Your task to perform on an android device: Open maps Image 0: 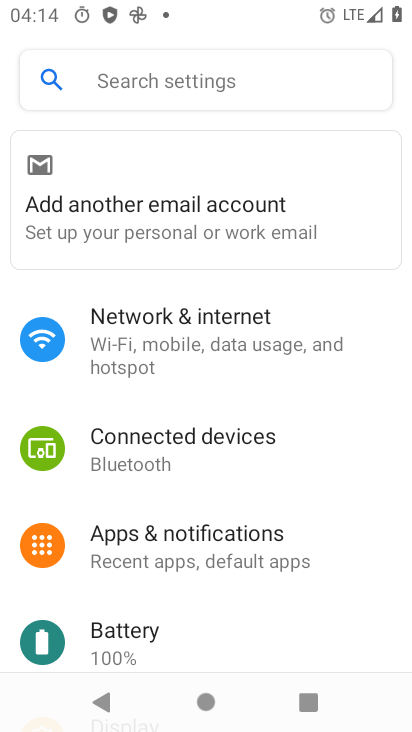
Step 0: press home button
Your task to perform on an android device: Open maps Image 1: 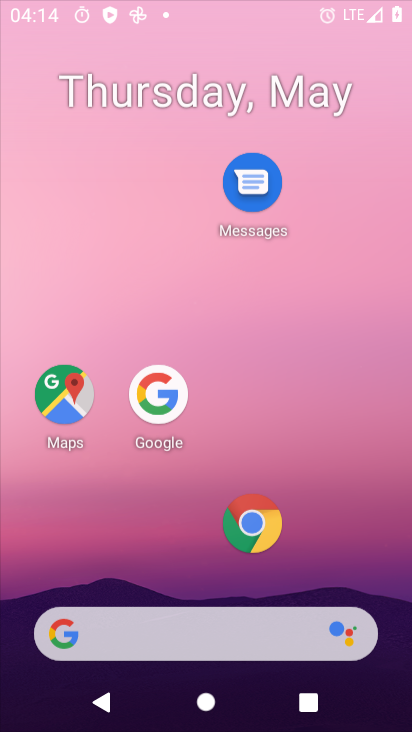
Step 1: drag from (238, 600) to (283, 23)
Your task to perform on an android device: Open maps Image 2: 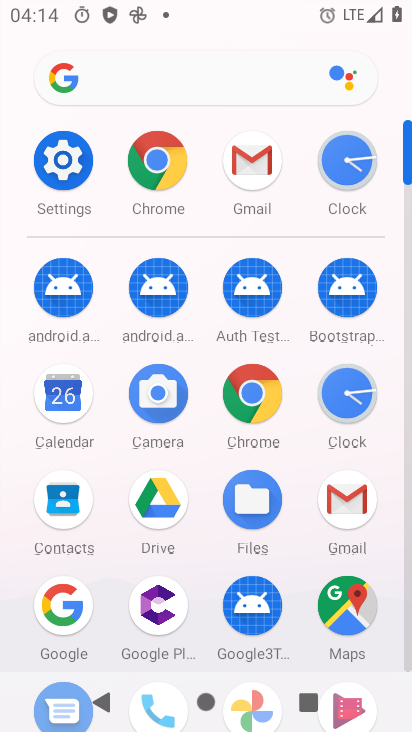
Step 2: click (350, 589)
Your task to perform on an android device: Open maps Image 3: 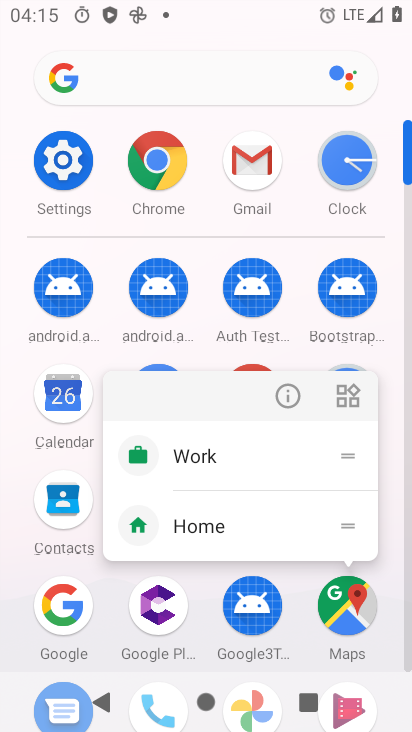
Step 3: click (298, 409)
Your task to perform on an android device: Open maps Image 4: 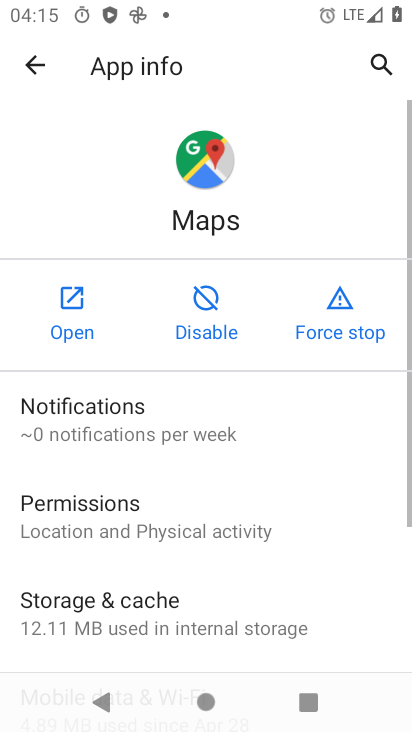
Step 4: click (81, 337)
Your task to perform on an android device: Open maps Image 5: 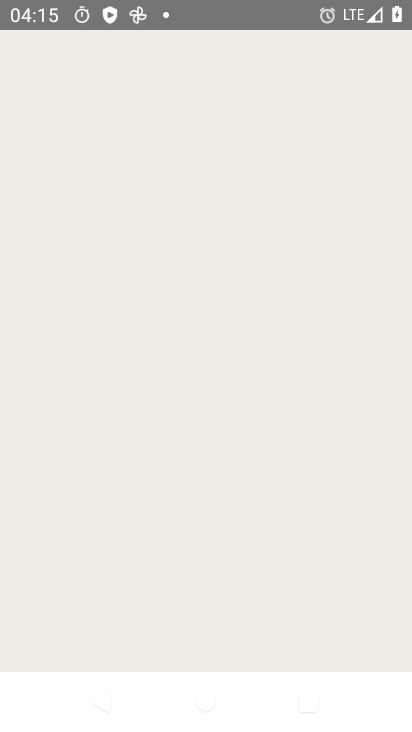
Step 5: task complete